Your task to perform on an android device: choose inbox layout in the gmail app Image 0: 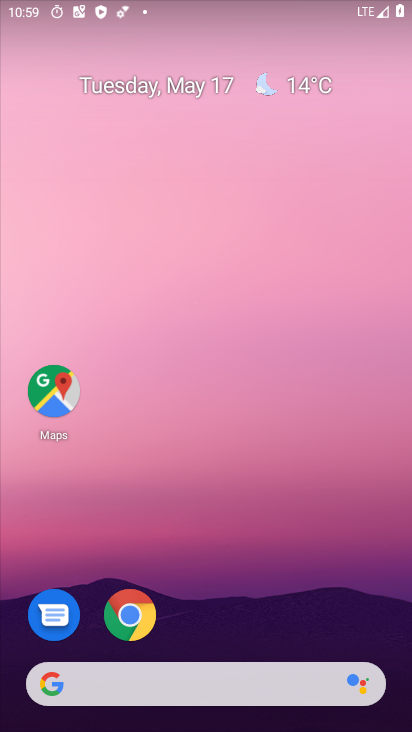
Step 0: press home button
Your task to perform on an android device: choose inbox layout in the gmail app Image 1: 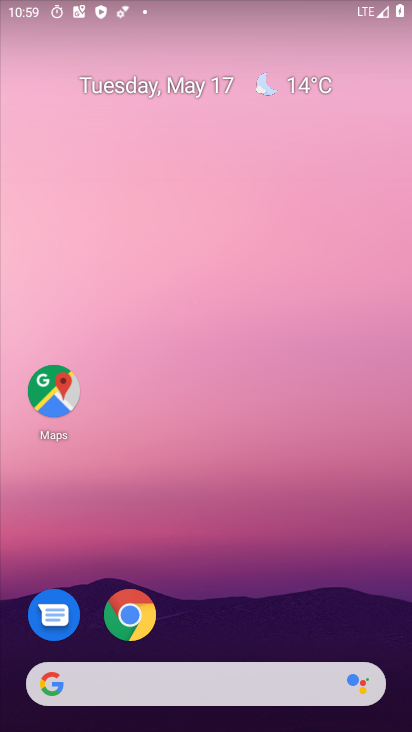
Step 1: drag from (160, 686) to (275, 164)
Your task to perform on an android device: choose inbox layout in the gmail app Image 2: 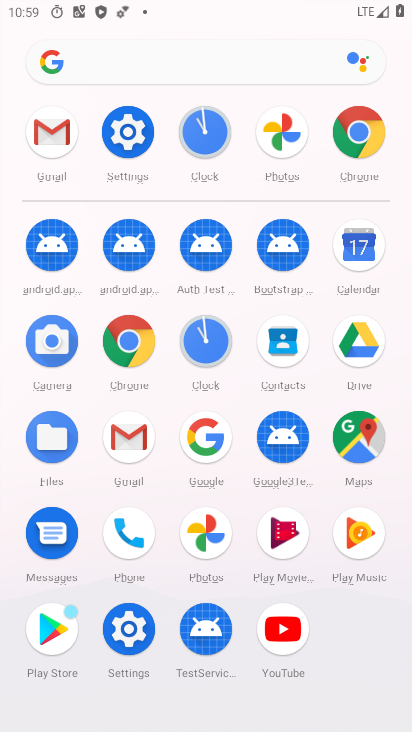
Step 2: click (125, 443)
Your task to perform on an android device: choose inbox layout in the gmail app Image 3: 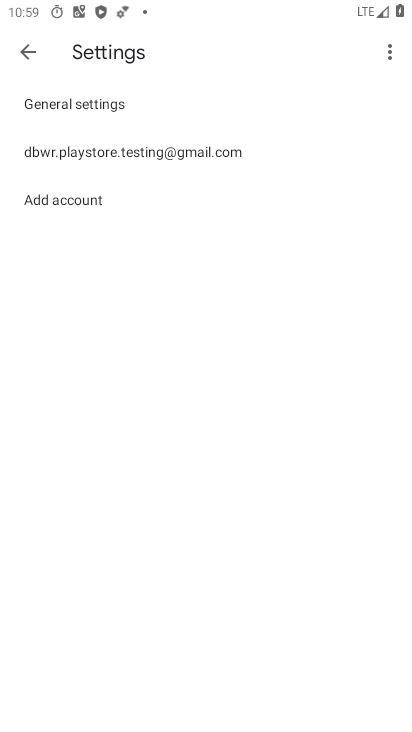
Step 3: click (156, 148)
Your task to perform on an android device: choose inbox layout in the gmail app Image 4: 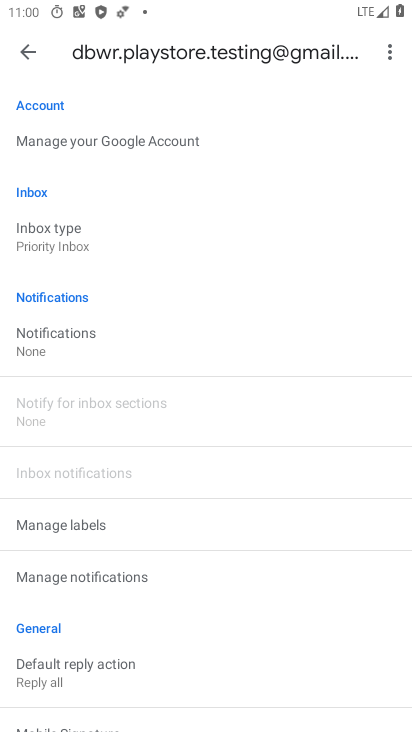
Step 4: click (61, 229)
Your task to perform on an android device: choose inbox layout in the gmail app Image 5: 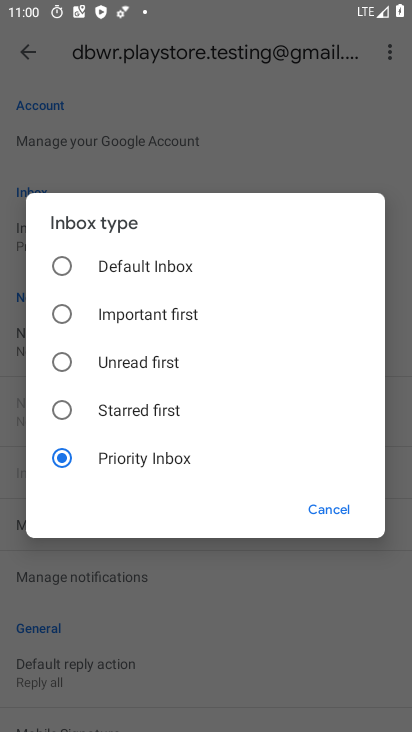
Step 5: click (64, 272)
Your task to perform on an android device: choose inbox layout in the gmail app Image 6: 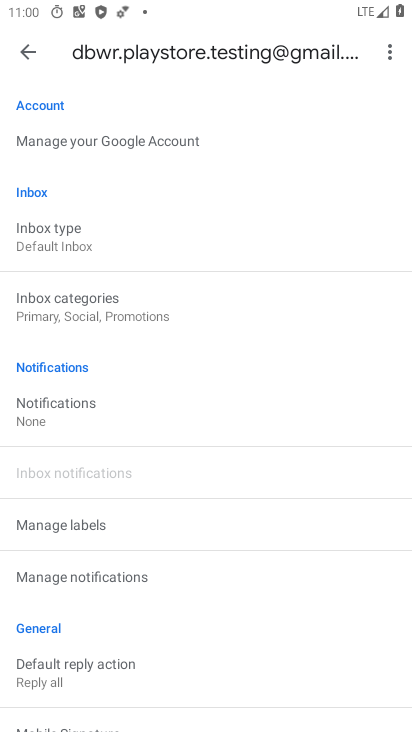
Step 6: task complete